Your task to perform on an android device: add a label to a message in the gmail app Image 0: 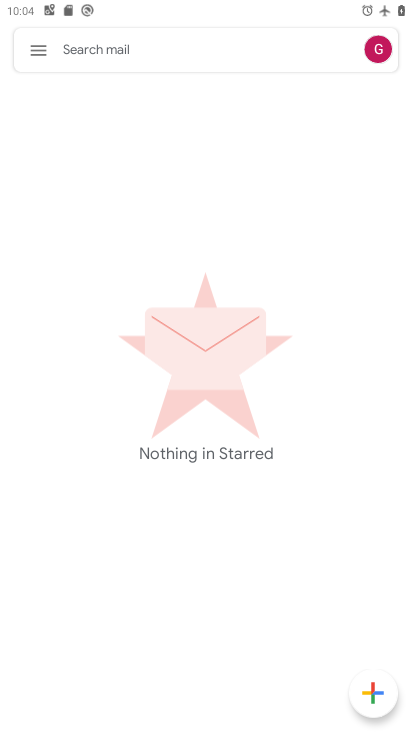
Step 0: press home button
Your task to perform on an android device: add a label to a message in the gmail app Image 1: 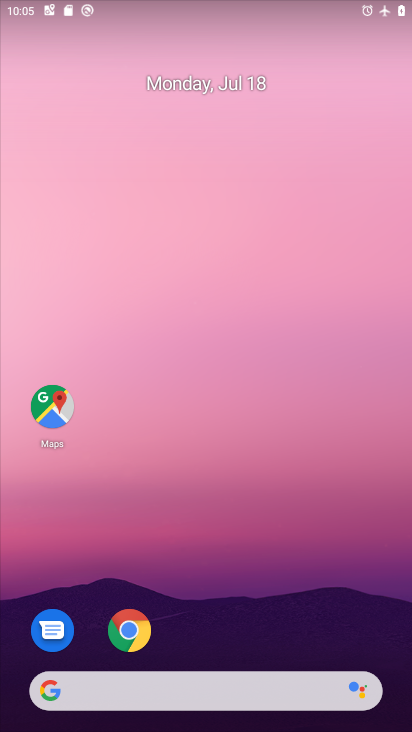
Step 1: drag from (196, 625) to (231, 68)
Your task to perform on an android device: add a label to a message in the gmail app Image 2: 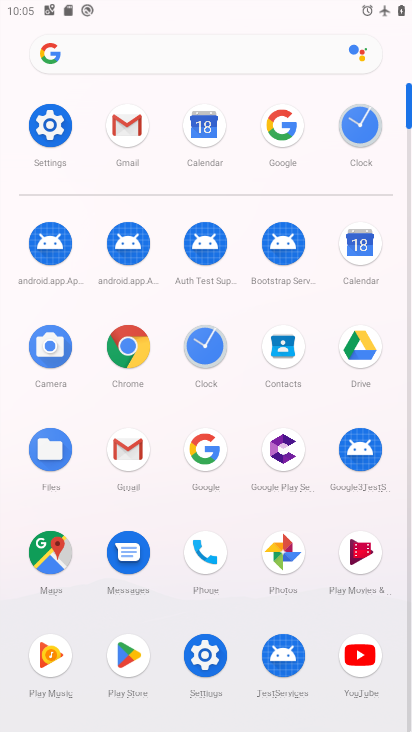
Step 2: click (123, 124)
Your task to perform on an android device: add a label to a message in the gmail app Image 3: 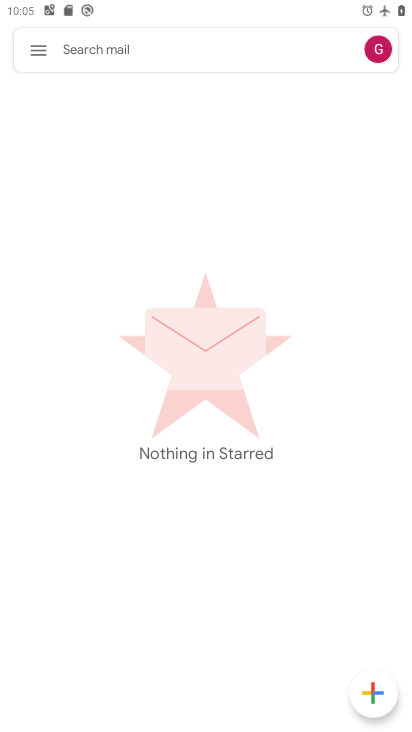
Step 3: task complete